Your task to perform on an android device: Open settings on Google Maps Image 0: 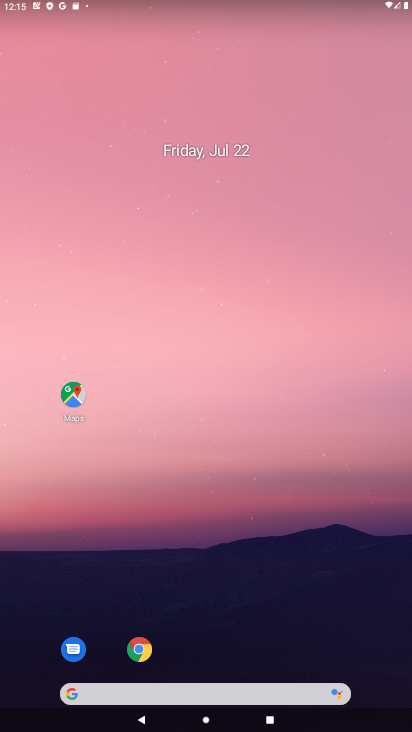
Step 0: drag from (226, 726) to (256, 269)
Your task to perform on an android device: Open settings on Google Maps Image 1: 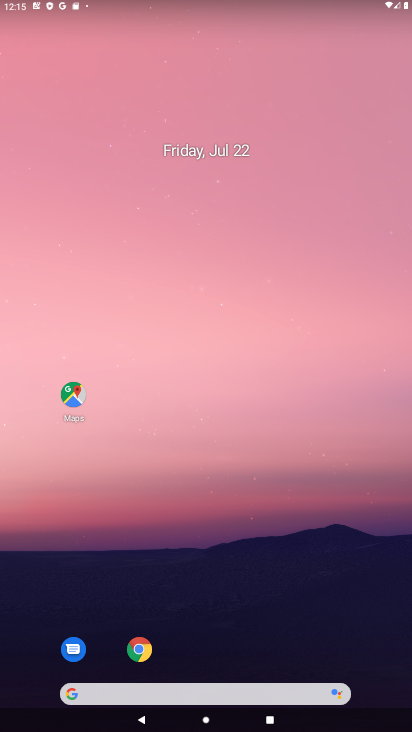
Step 1: drag from (228, 725) to (231, 173)
Your task to perform on an android device: Open settings on Google Maps Image 2: 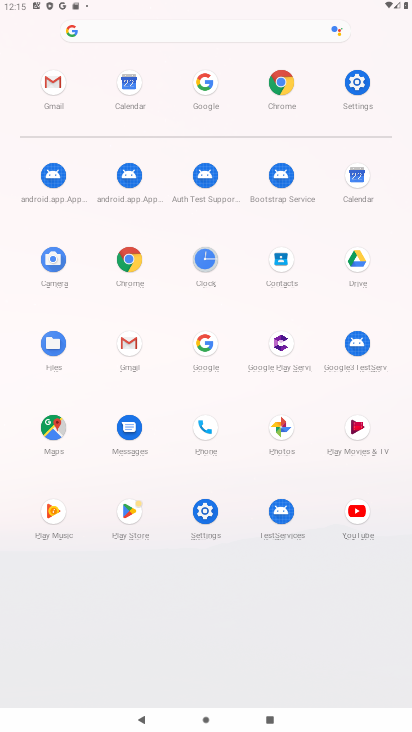
Step 2: click (56, 429)
Your task to perform on an android device: Open settings on Google Maps Image 3: 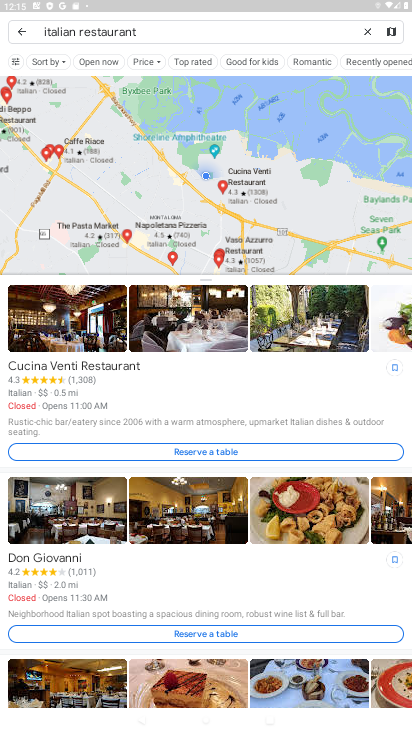
Step 3: click (21, 32)
Your task to perform on an android device: Open settings on Google Maps Image 4: 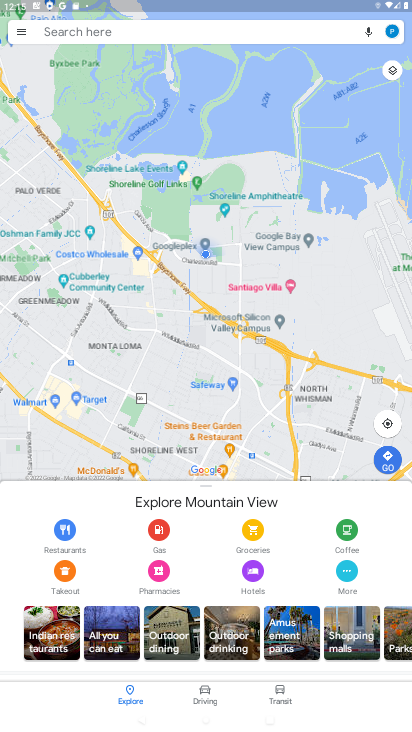
Step 4: click (19, 27)
Your task to perform on an android device: Open settings on Google Maps Image 5: 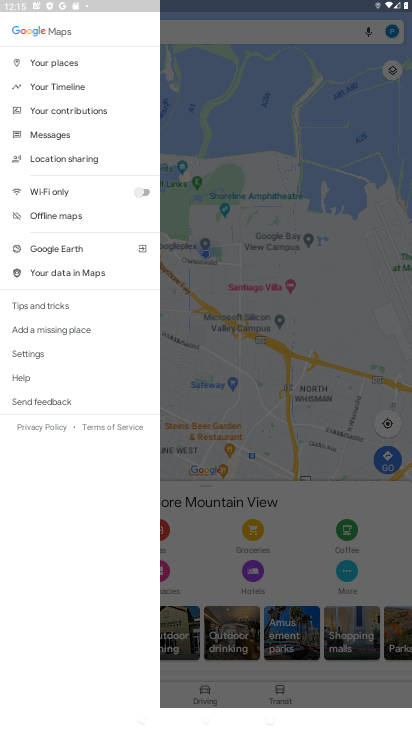
Step 5: click (33, 354)
Your task to perform on an android device: Open settings on Google Maps Image 6: 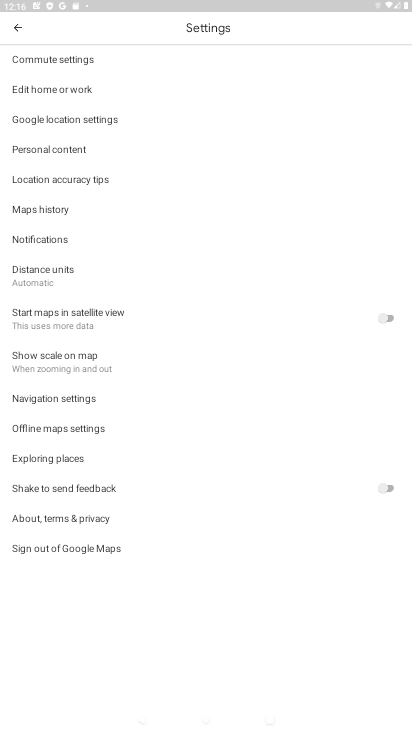
Step 6: task complete